Your task to perform on an android device: turn pop-ups on in chrome Image 0: 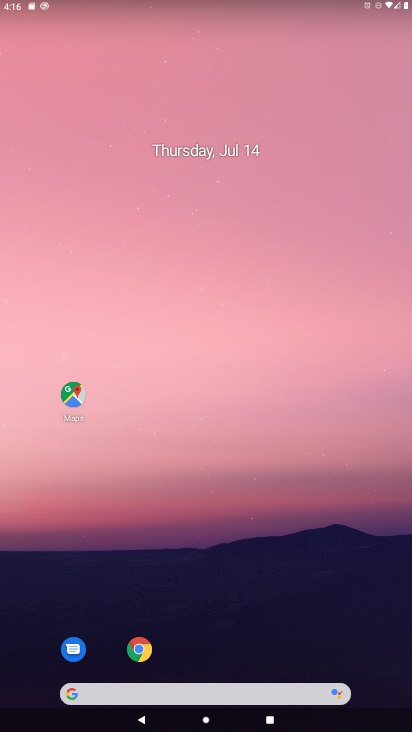
Step 0: drag from (235, 640) to (259, 259)
Your task to perform on an android device: turn pop-ups on in chrome Image 1: 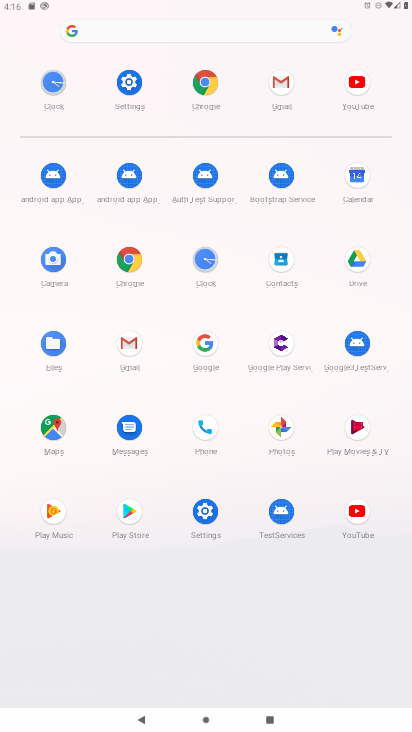
Step 1: click (134, 267)
Your task to perform on an android device: turn pop-ups on in chrome Image 2: 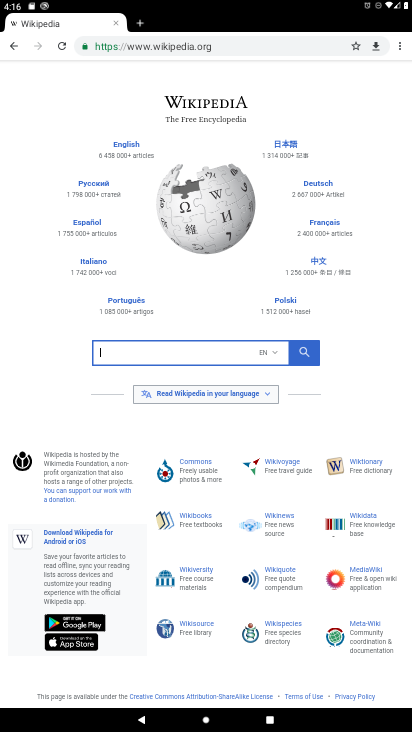
Step 2: click (396, 45)
Your task to perform on an android device: turn pop-ups on in chrome Image 3: 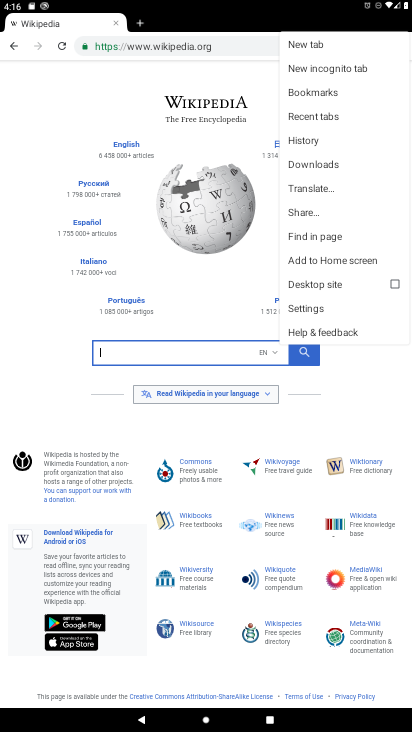
Step 3: click (303, 302)
Your task to perform on an android device: turn pop-ups on in chrome Image 4: 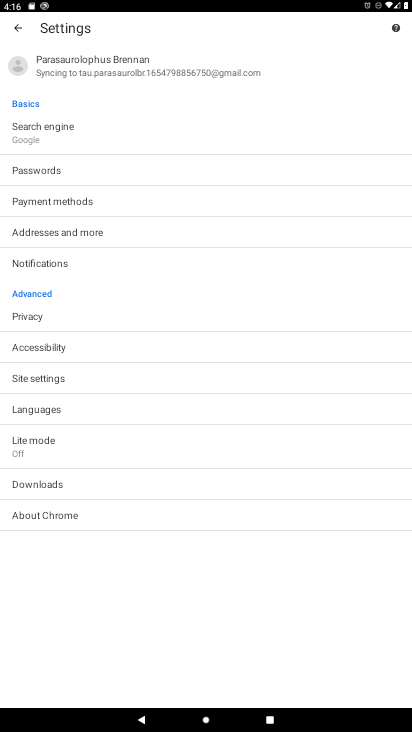
Step 4: click (54, 375)
Your task to perform on an android device: turn pop-ups on in chrome Image 5: 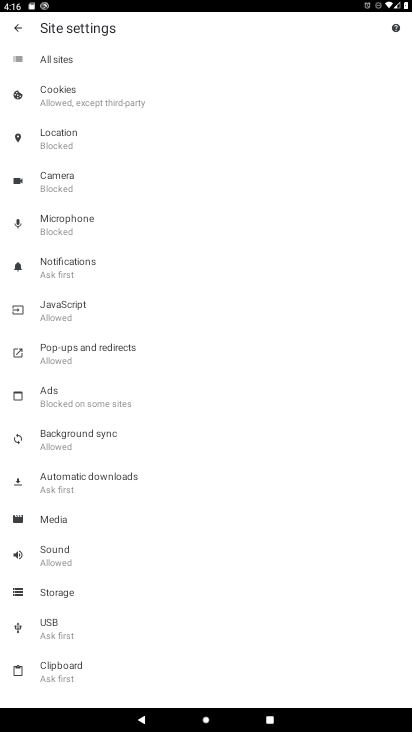
Step 5: click (71, 361)
Your task to perform on an android device: turn pop-ups on in chrome Image 6: 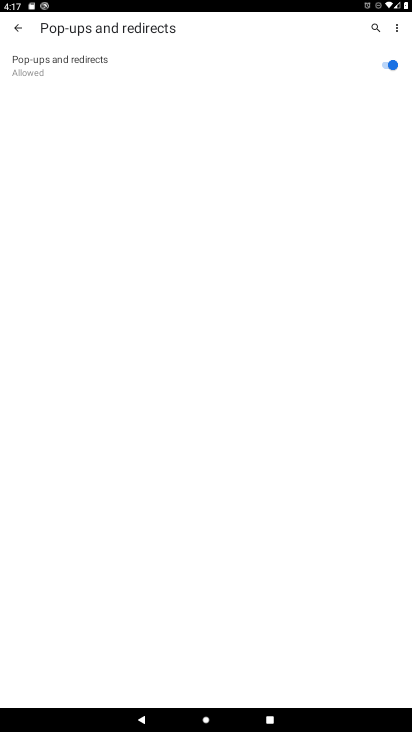
Step 6: task complete